Your task to perform on an android device: Go to Android settings Image 0: 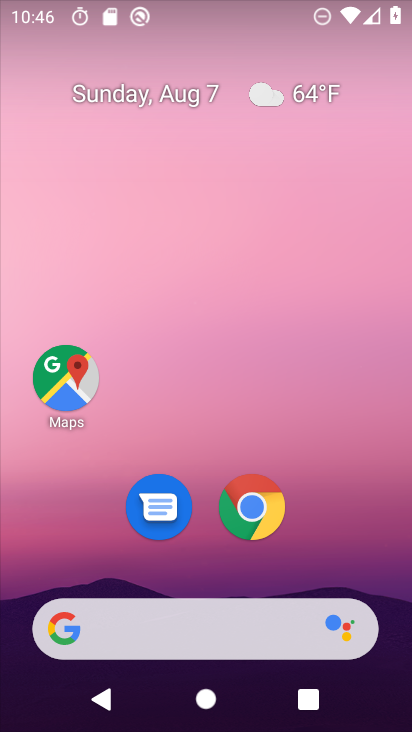
Step 0: drag from (358, 506) to (369, 89)
Your task to perform on an android device: Go to Android settings Image 1: 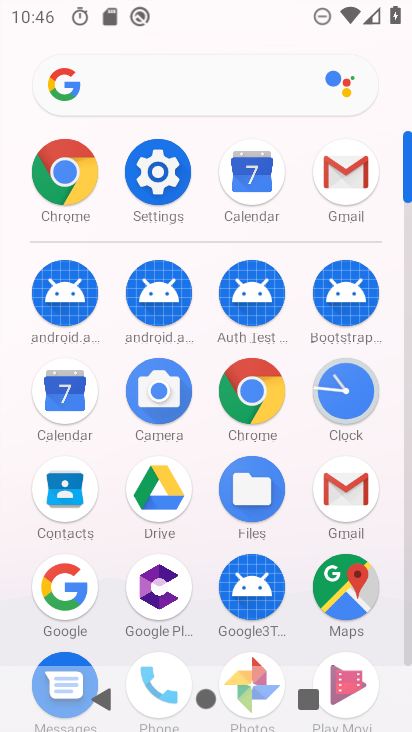
Step 1: click (160, 172)
Your task to perform on an android device: Go to Android settings Image 2: 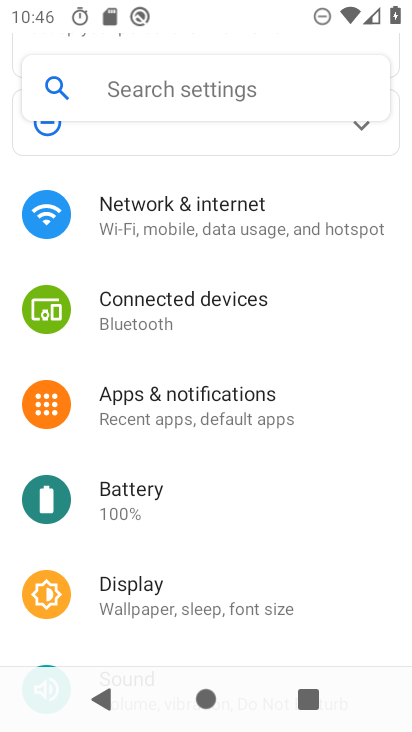
Step 2: task complete